Your task to perform on an android device: toggle javascript in the chrome app Image 0: 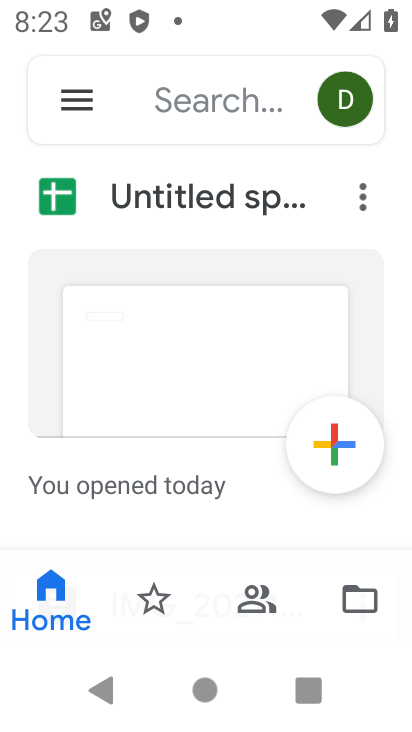
Step 0: press home button
Your task to perform on an android device: toggle javascript in the chrome app Image 1: 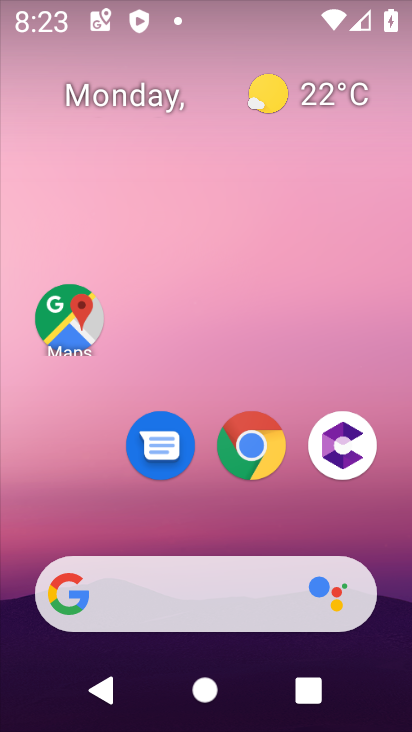
Step 1: click (264, 439)
Your task to perform on an android device: toggle javascript in the chrome app Image 2: 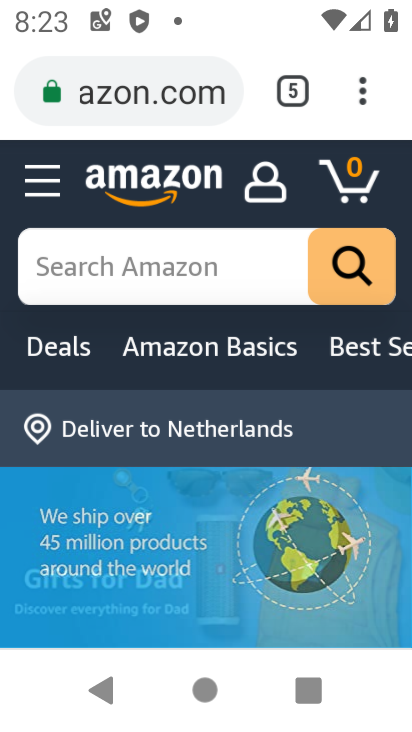
Step 2: drag from (369, 92) to (192, 466)
Your task to perform on an android device: toggle javascript in the chrome app Image 3: 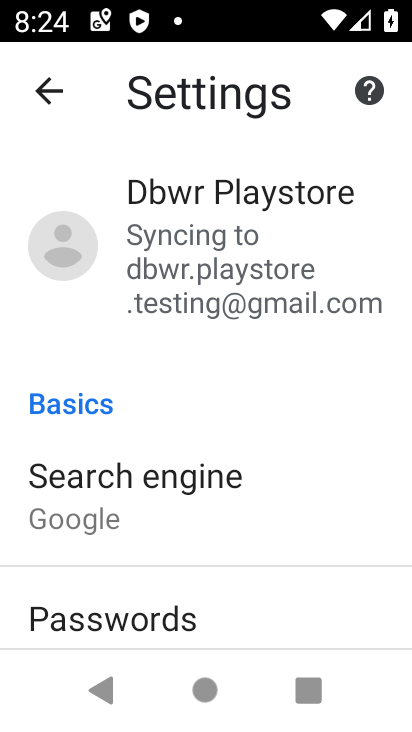
Step 3: drag from (295, 422) to (248, 142)
Your task to perform on an android device: toggle javascript in the chrome app Image 4: 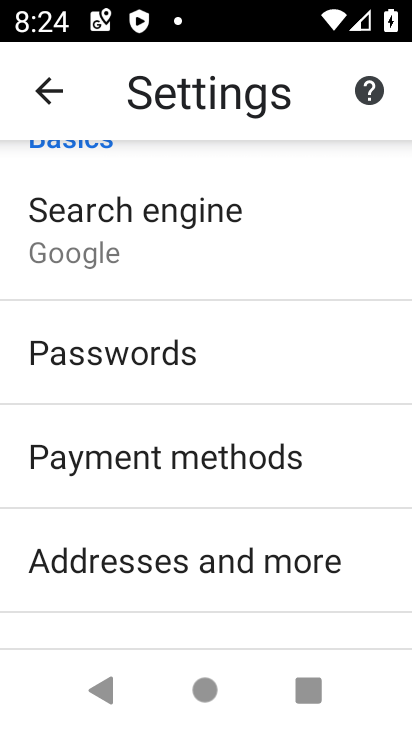
Step 4: drag from (58, 597) to (129, 242)
Your task to perform on an android device: toggle javascript in the chrome app Image 5: 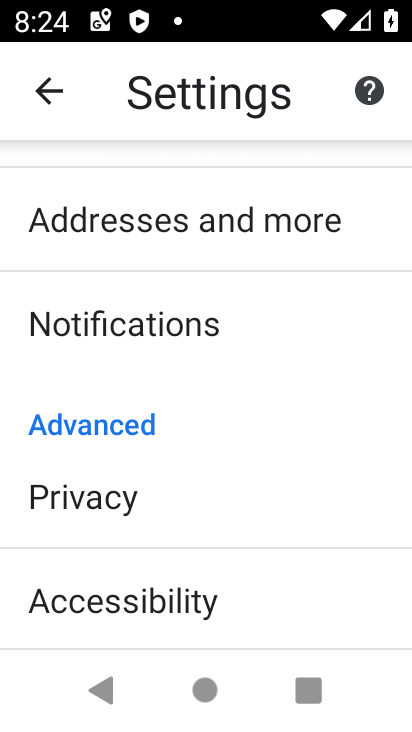
Step 5: drag from (299, 453) to (276, 258)
Your task to perform on an android device: toggle javascript in the chrome app Image 6: 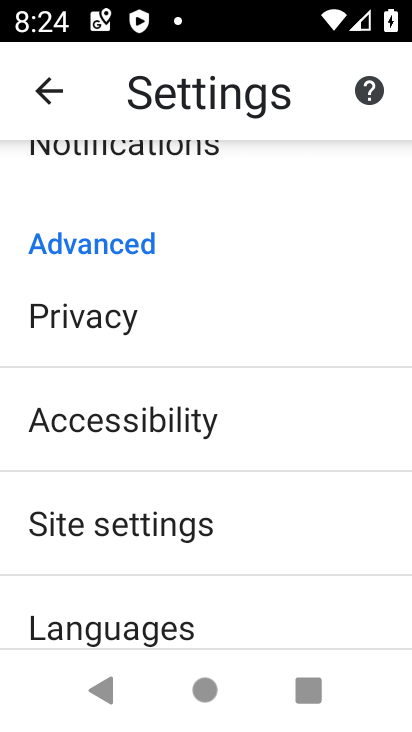
Step 6: click (139, 514)
Your task to perform on an android device: toggle javascript in the chrome app Image 7: 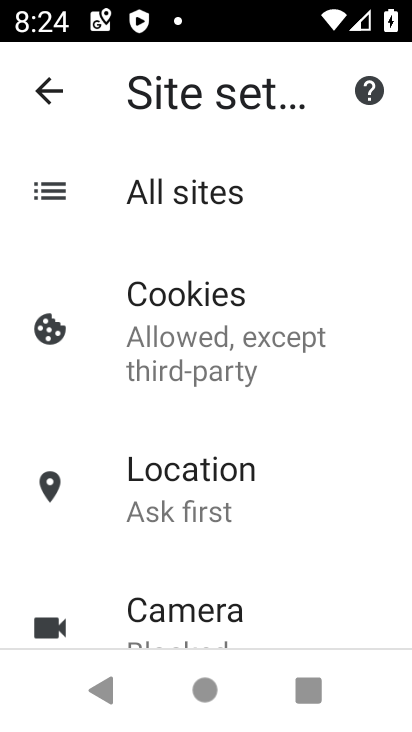
Step 7: drag from (26, 562) to (40, 253)
Your task to perform on an android device: toggle javascript in the chrome app Image 8: 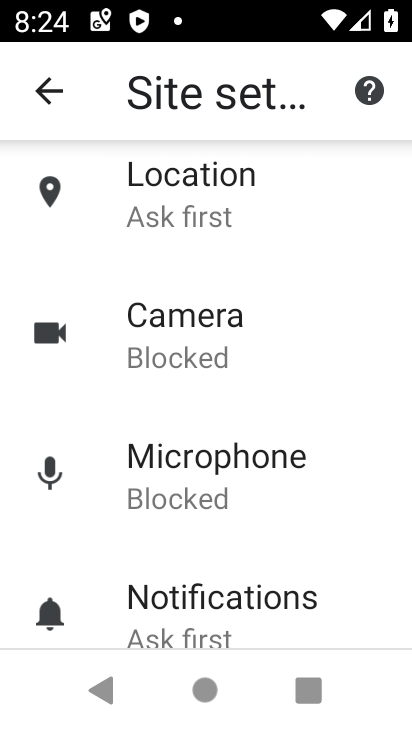
Step 8: drag from (33, 549) to (50, 269)
Your task to perform on an android device: toggle javascript in the chrome app Image 9: 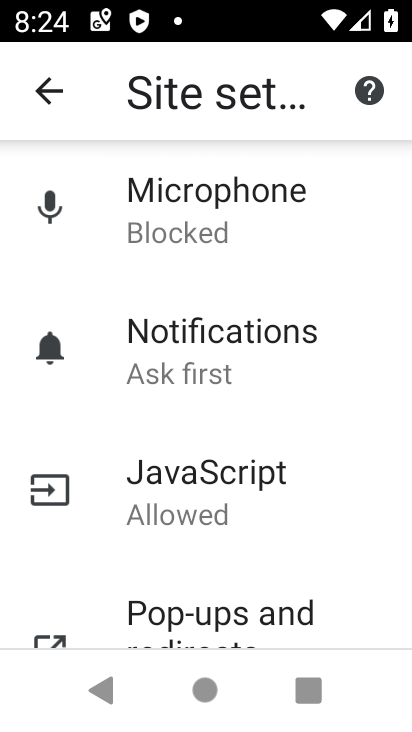
Step 9: click (274, 499)
Your task to perform on an android device: toggle javascript in the chrome app Image 10: 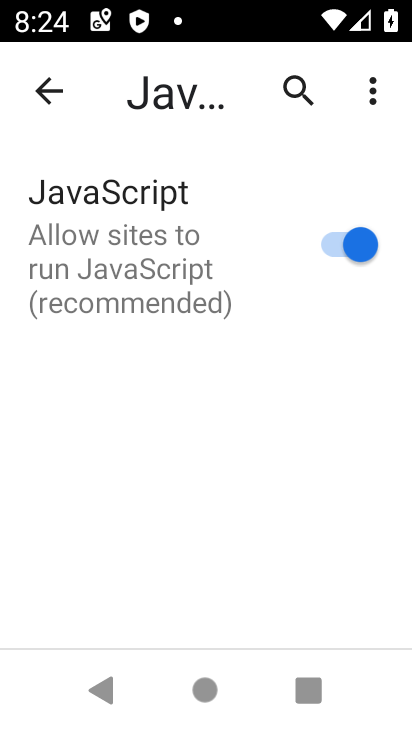
Step 10: click (326, 239)
Your task to perform on an android device: toggle javascript in the chrome app Image 11: 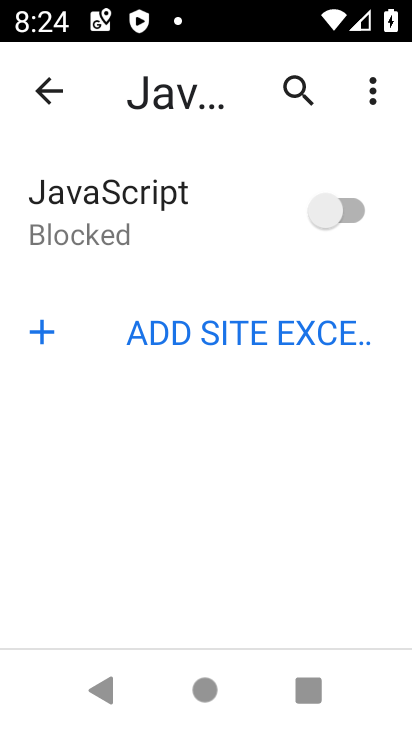
Step 11: task complete